Your task to perform on an android device: turn off priority inbox in the gmail app Image 0: 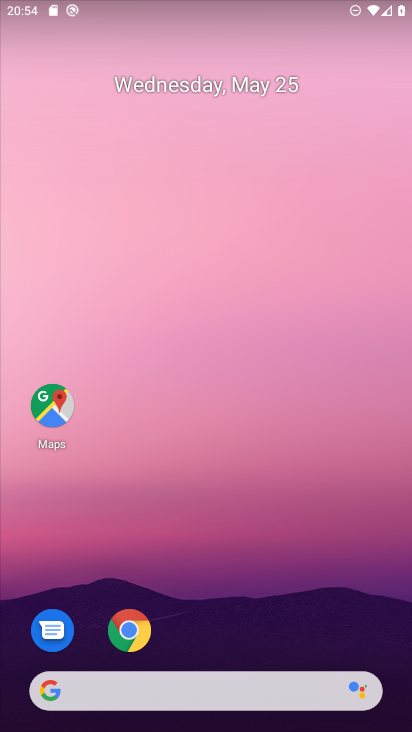
Step 0: drag from (215, 621) to (213, 148)
Your task to perform on an android device: turn off priority inbox in the gmail app Image 1: 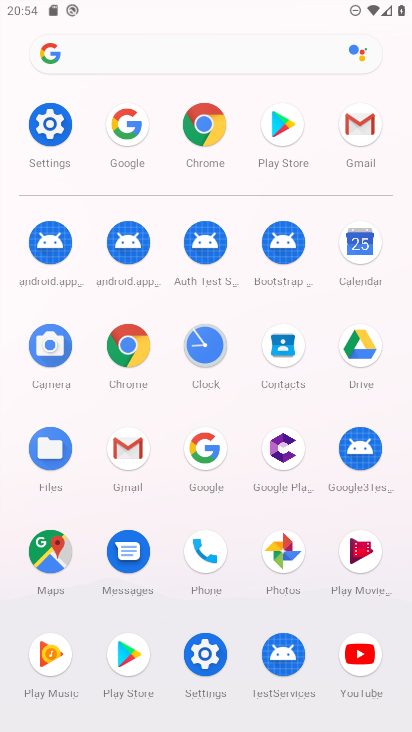
Step 1: click (366, 117)
Your task to perform on an android device: turn off priority inbox in the gmail app Image 2: 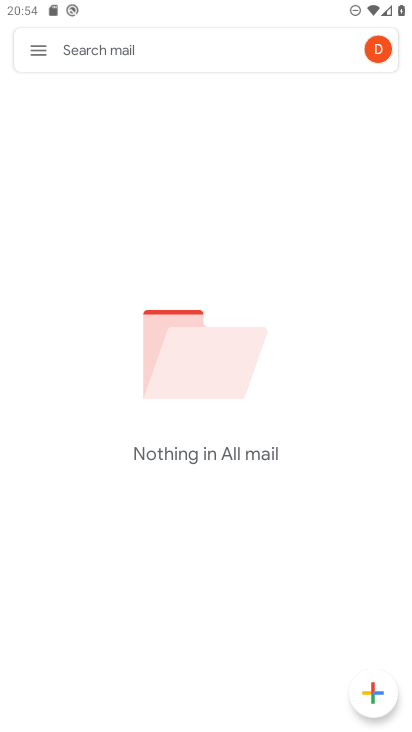
Step 2: click (30, 58)
Your task to perform on an android device: turn off priority inbox in the gmail app Image 3: 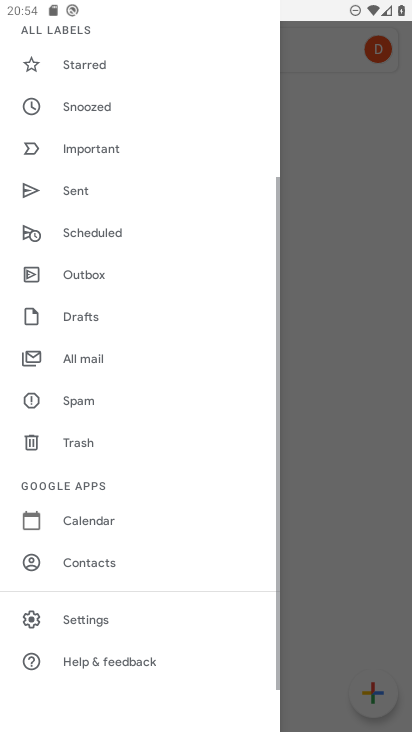
Step 3: click (102, 609)
Your task to perform on an android device: turn off priority inbox in the gmail app Image 4: 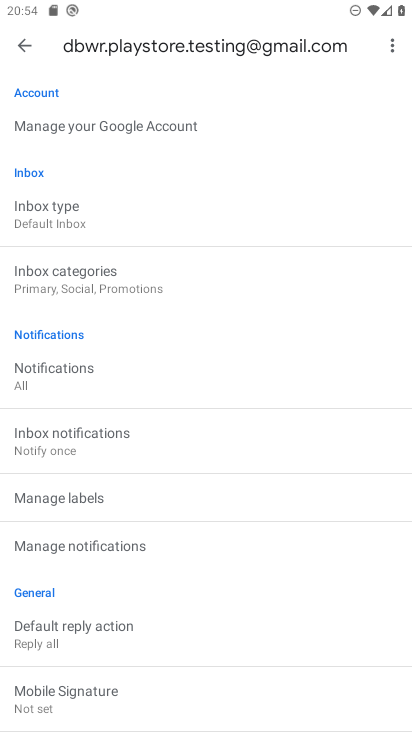
Step 4: click (56, 210)
Your task to perform on an android device: turn off priority inbox in the gmail app Image 5: 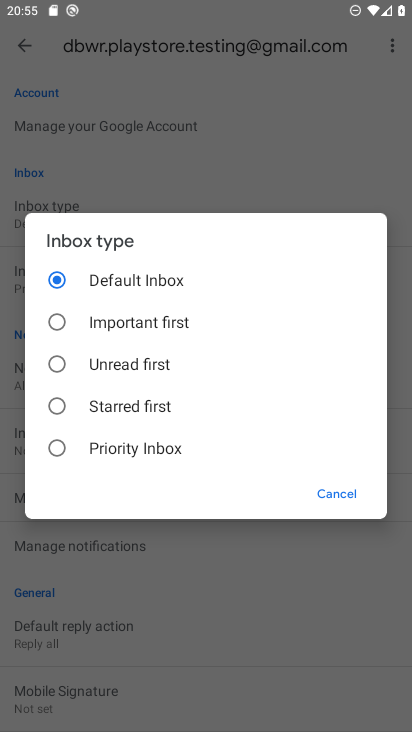
Step 5: task complete